Your task to perform on an android device: delete location history Image 0: 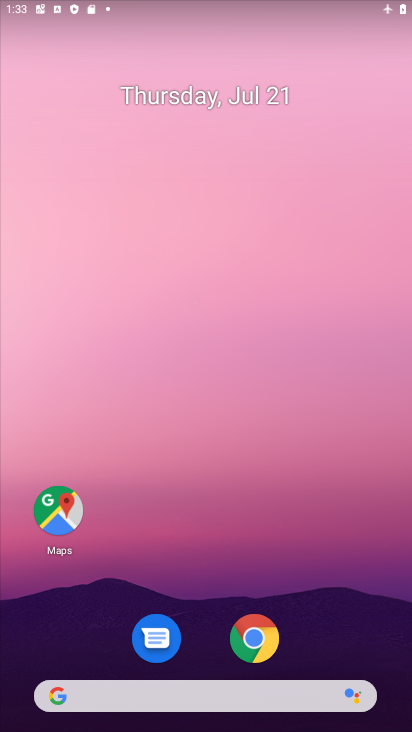
Step 0: drag from (246, 669) to (249, 20)
Your task to perform on an android device: delete location history Image 1: 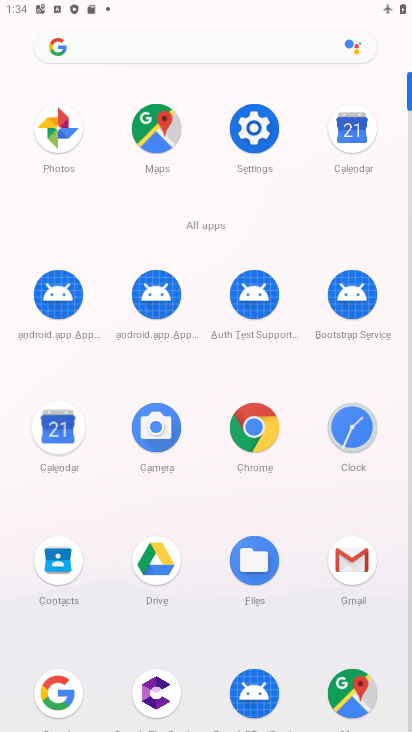
Step 1: click (173, 152)
Your task to perform on an android device: delete location history Image 2: 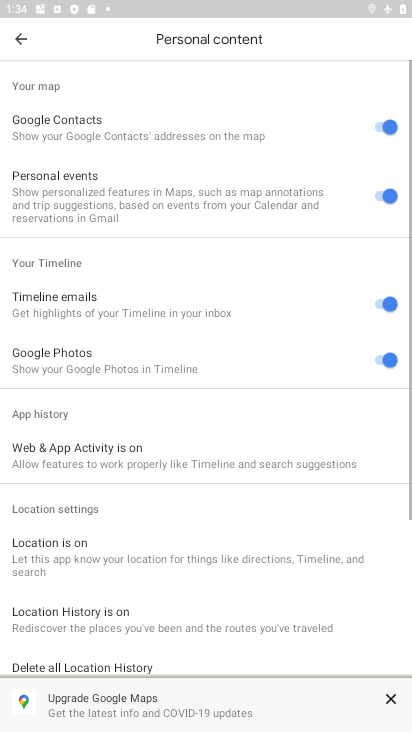
Step 2: drag from (320, 11) to (392, 372)
Your task to perform on an android device: delete location history Image 3: 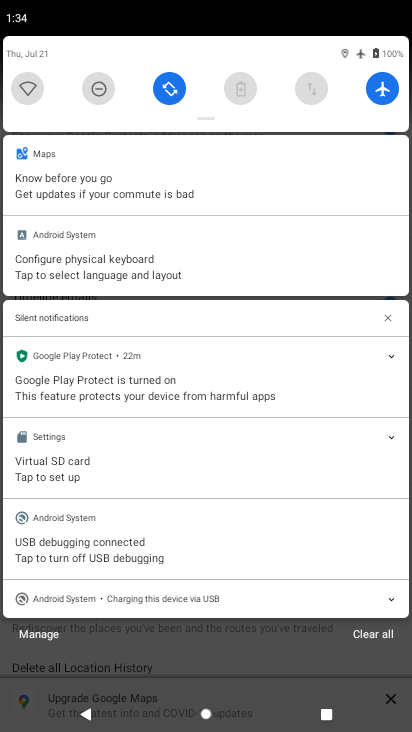
Step 3: click (380, 85)
Your task to perform on an android device: delete location history Image 4: 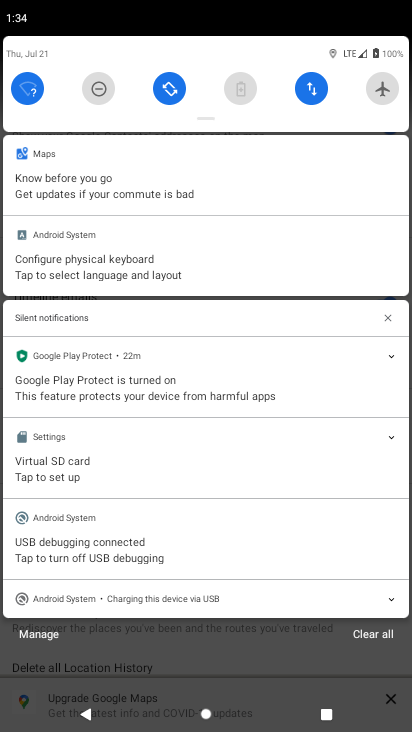
Step 4: task complete